Your task to perform on an android device: Open calendar and show me the third week of next month Image 0: 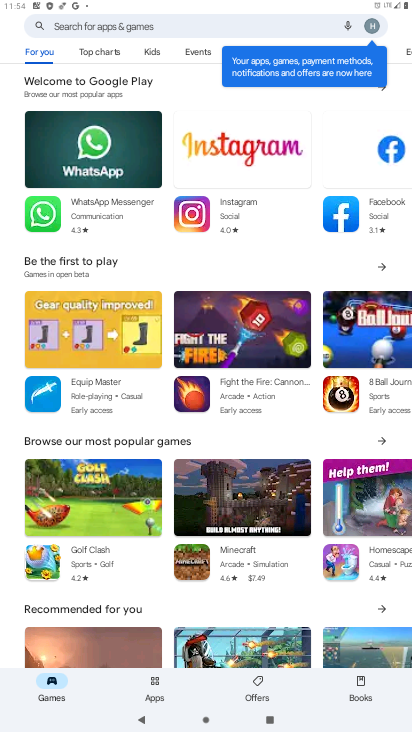
Step 0: press home button
Your task to perform on an android device: Open calendar and show me the third week of next month Image 1: 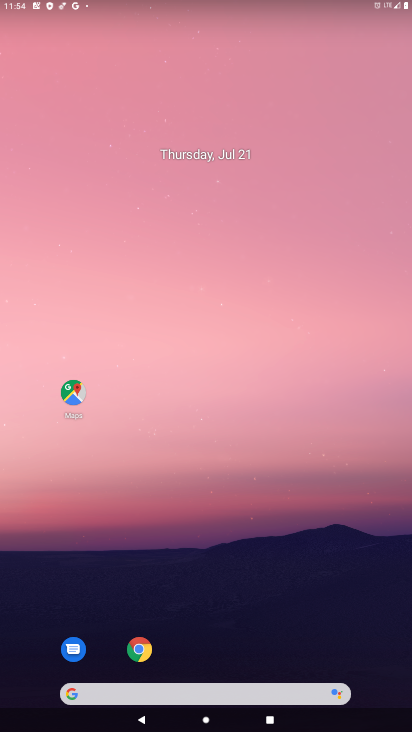
Step 1: drag from (322, 594) to (182, 128)
Your task to perform on an android device: Open calendar and show me the third week of next month Image 2: 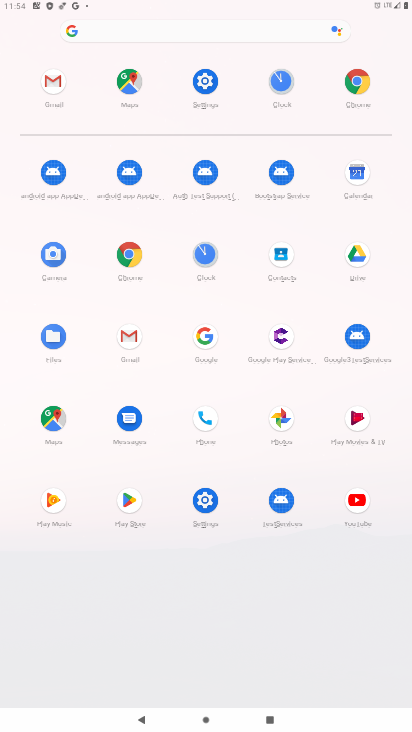
Step 2: click (360, 179)
Your task to perform on an android device: Open calendar and show me the third week of next month Image 3: 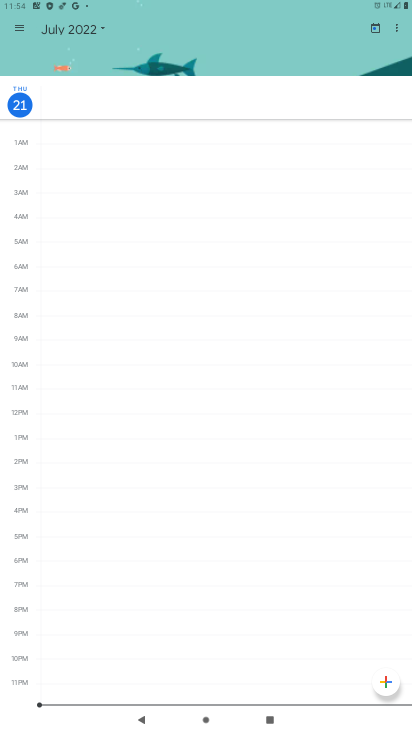
Step 3: click (49, 32)
Your task to perform on an android device: Open calendar and show me the third week of next month Image 4: 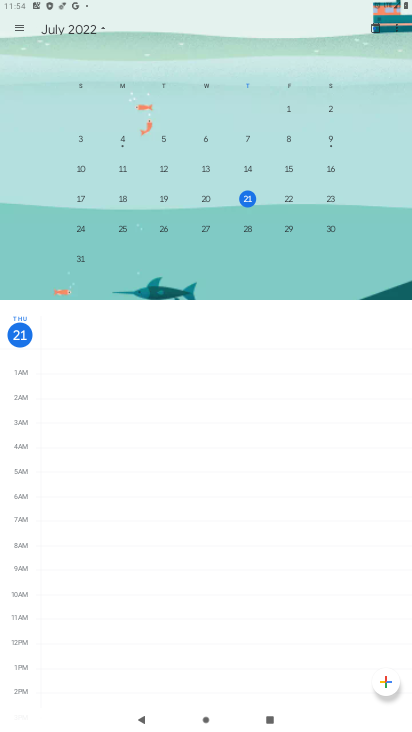
Step 4: drag from (336, 199) to (75, 218)
Your task to perform on an android device: Open calendar and show me the third week of next month Image 5: 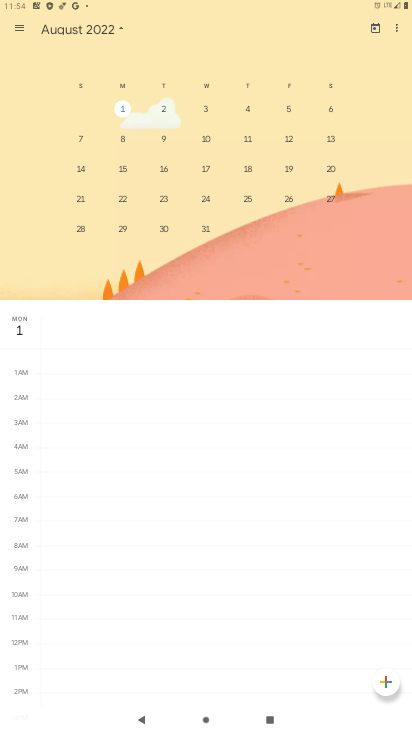
Step 5: click (128, 172)
Your task to perform on an android device: Open calendar and show me the third week of next month Image 6: 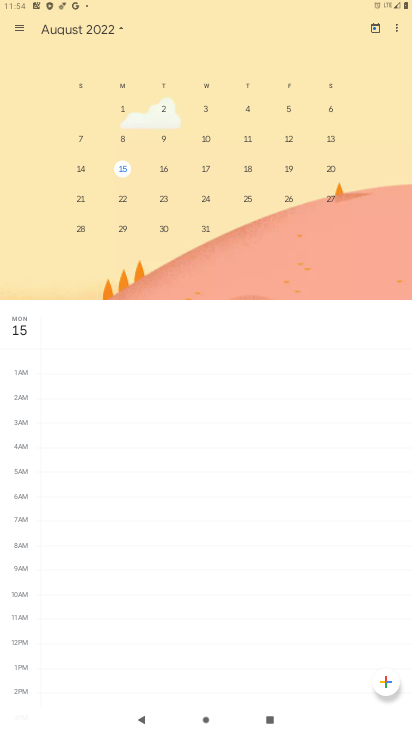
Step 6: task complete